Your task to perform on an android device: move an email to a new category in the gmail app Image 0: 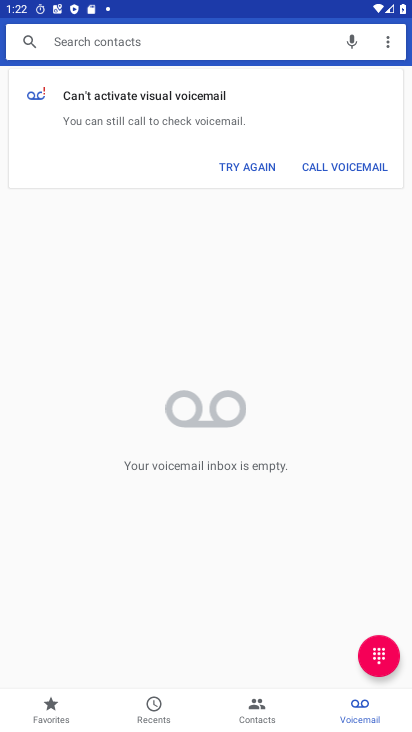
Step 0: press home button
Your task to perform on an android device: move an email to a new category in the gmail app Image 1: 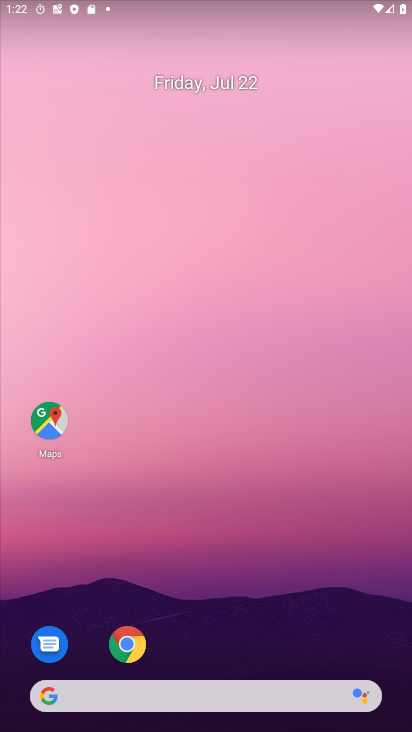
Step 1: drag from (255, 694) to (188, 378)
Your task to perform on an android device: move an email to a new category in the gmail app Image 2: 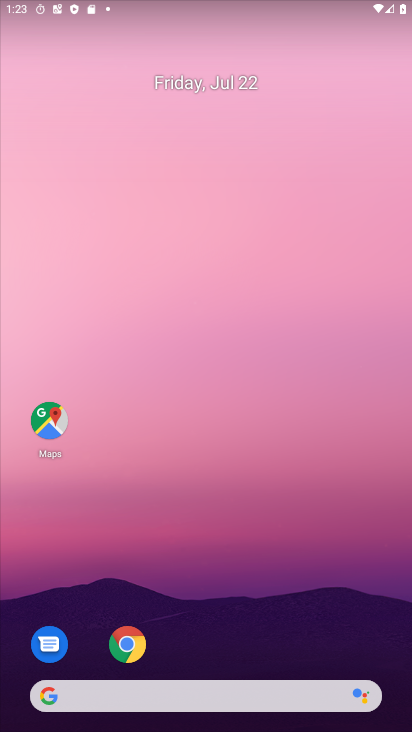
Step 2: drag from (253, 711) to (251, 371)
Your task to perform on an android device: move an email to a new category in the gmail app Image 3: 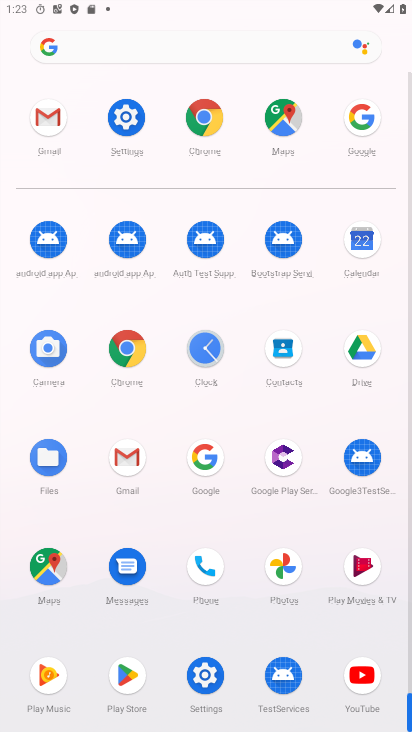
Step 3: click (138, 455)
Your task to perform on an android device: move an email to a new category in the gmail app Image 4: 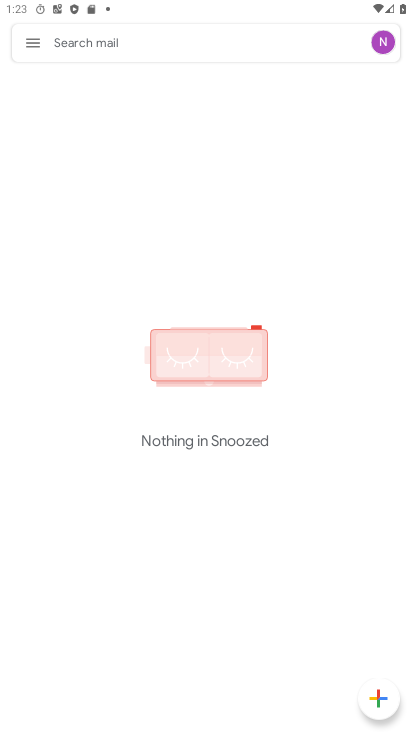
Step 4: click (34, 53)
Your task to perform on an android device: move an email to a new category in the gmail app Image 5: 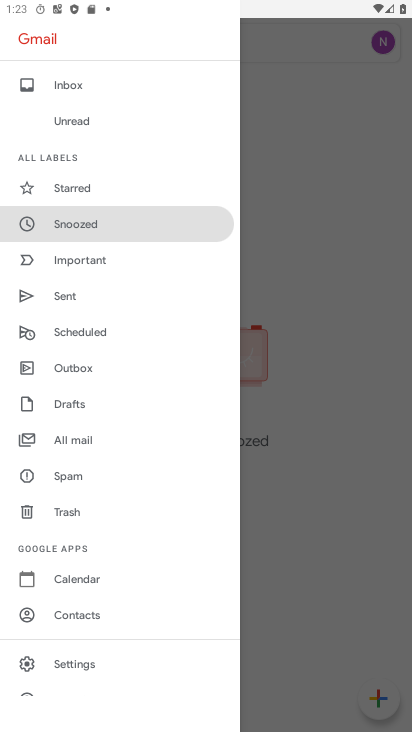
Step 5: click (104, 443)
Your task to perform on an android device: move an email to a new category in the gmail app Image 6: 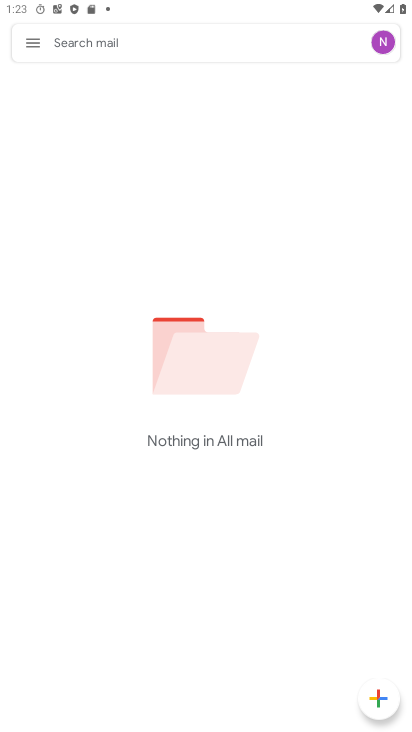
Step 6: task complete